Your task to perform on an android device: turn off sleep mode Image 0: 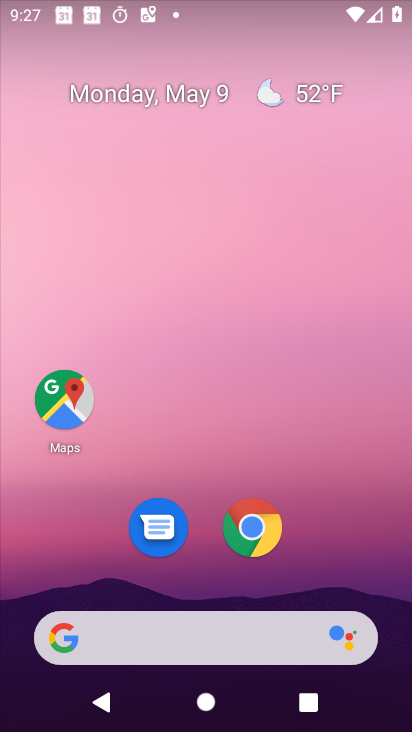
Step 0: drag from (354, 573) to (378, 176)
Your task to perform on an android device: turn off sleep mode Image 1: 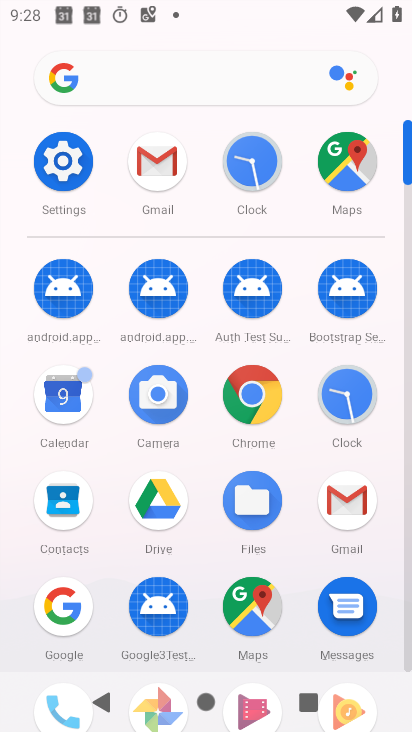
Step 1: click (81, 180)
Your task to perform on an android device: turn off sleep mode Image 2: 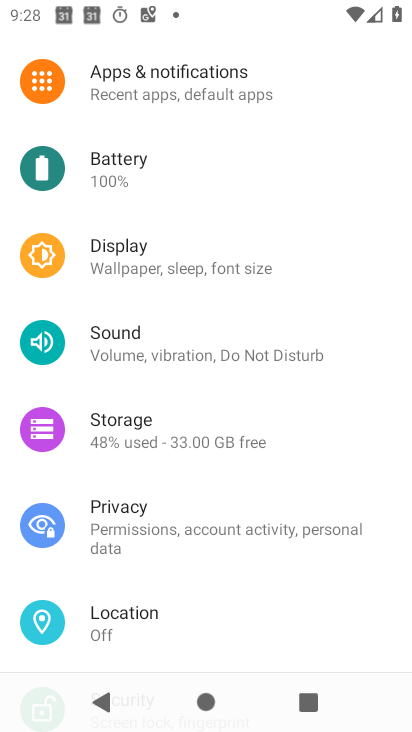
Step 2: drag from (243, 171) to (278, 403)
Your task to perform on an android device: turn off sleep mode Image 3: 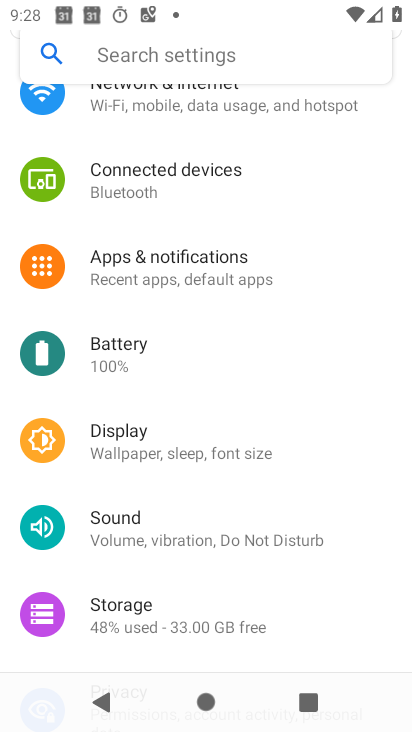
Step 3: click (226, 60)
Your task to perform on an android device: turn off sleep mode Image 4: 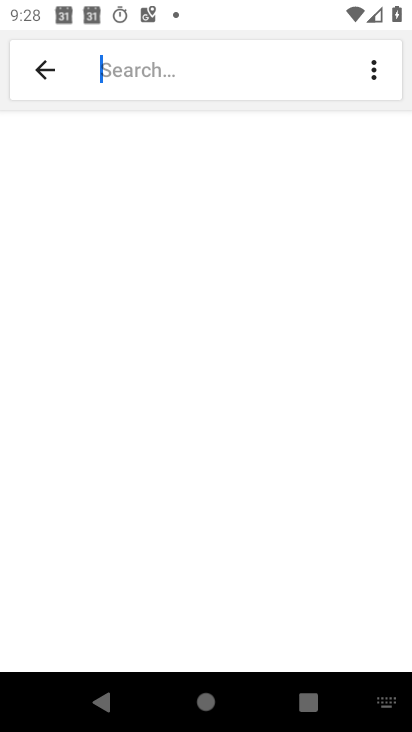
Step 4: type "sleep mode"
Your task to perform on an android device: turn off sleep mode Image 5: 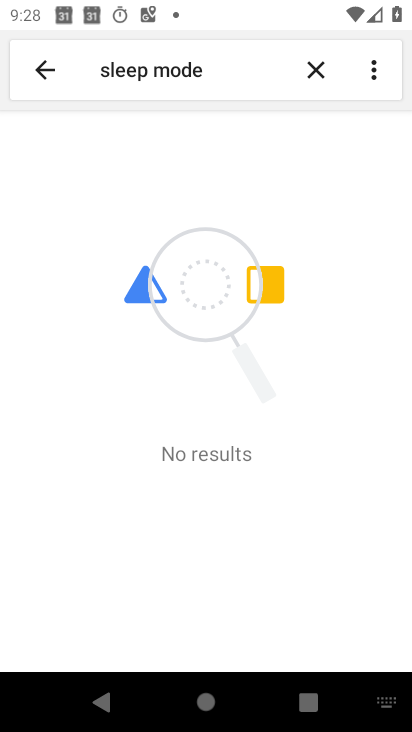
Step 5: task complete